Your task to perform on an android device: Open the calendar app, open the side menu, and click the "Day" option Image 0: 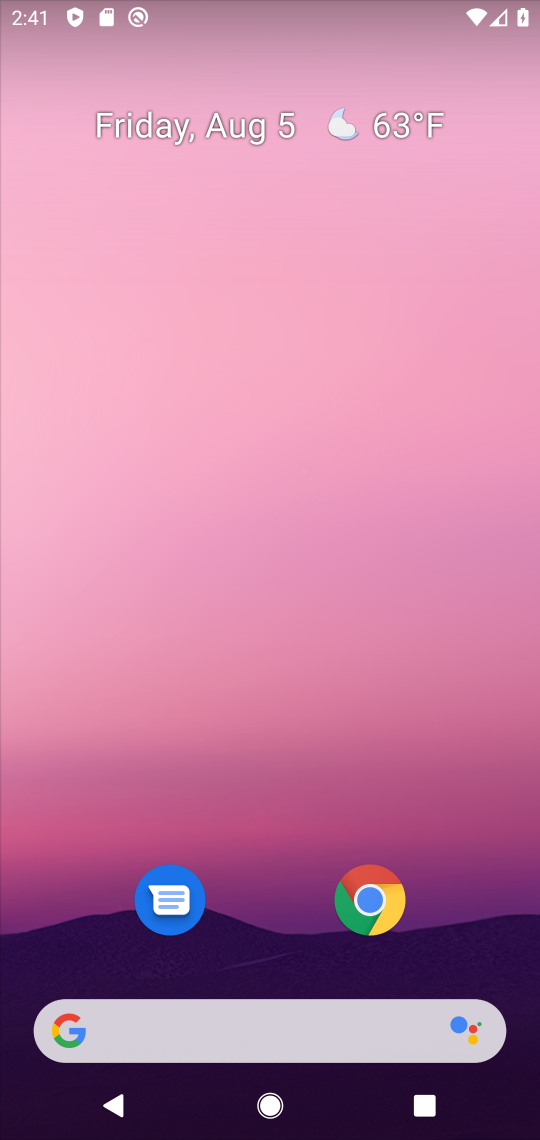
Step 0: drag from (291, 986) to (247, 185)
Your task to perform on an android device: Open the calendar app, open the side menu, and click the "Day" option Image 1: 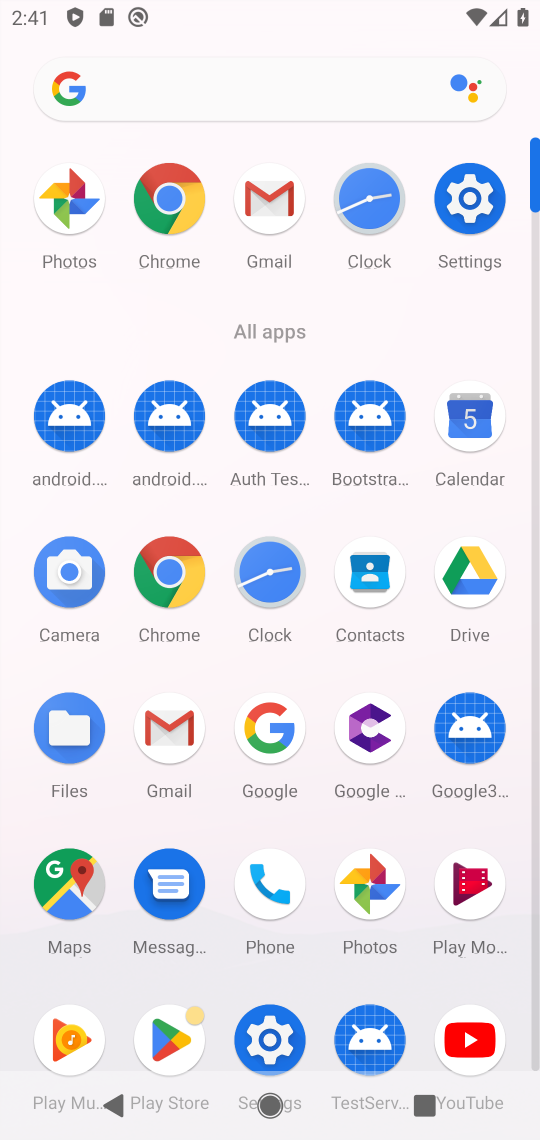
Step 1: click (465, 400)
Your task to perform on an android device: Open the calendar app, open the side menu, and click the "Day" option Image 2: 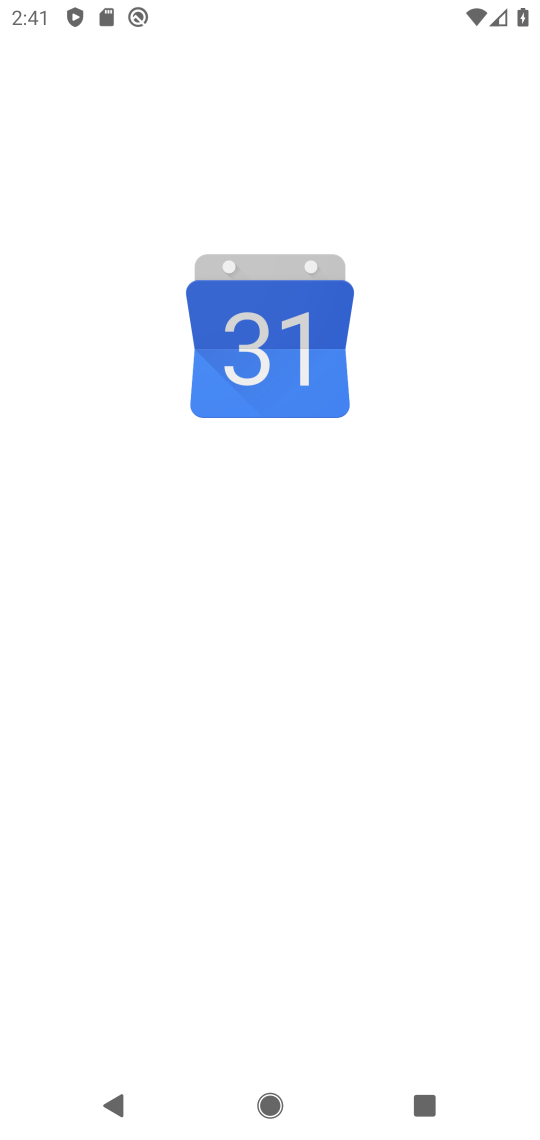
Step 2: task complete